Your task to perform on an android device: Find coffee shops on Maps Image 0: 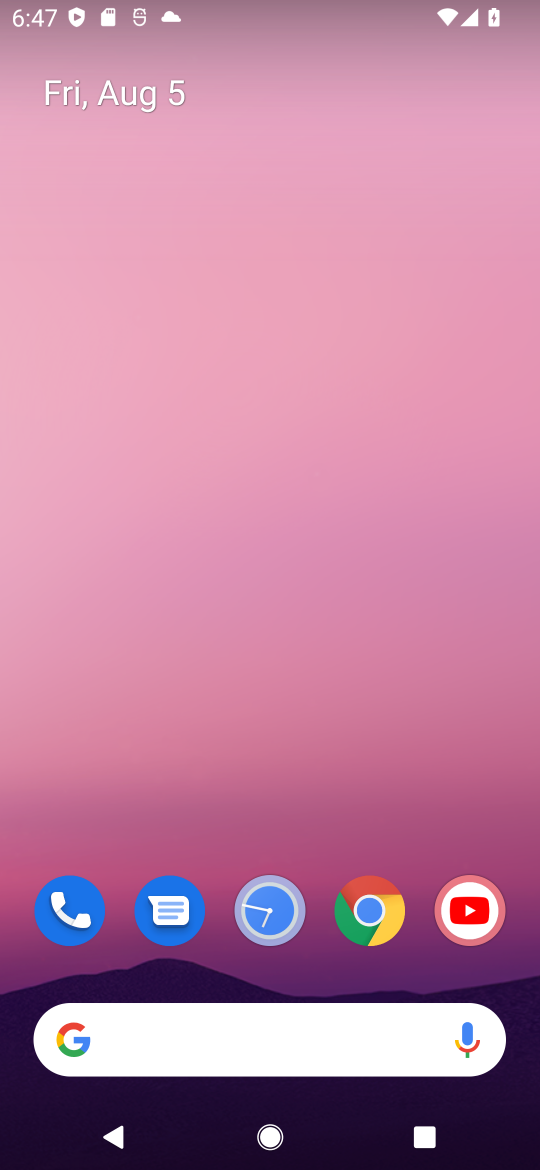
Step 0: drag from (318, 1036) to (295, 136)
Your task to perform on an android device: Find coffee shops on Maps Image 1: 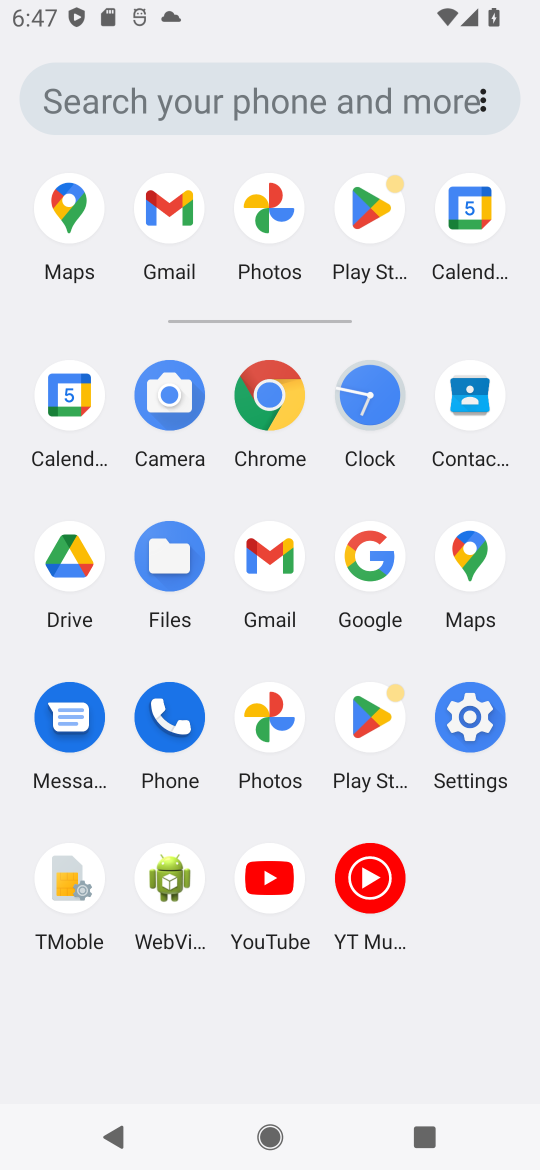
Step 1: click (478, 560)
Your task to perform on an android device: Find coffee shops on Maps Image 2: 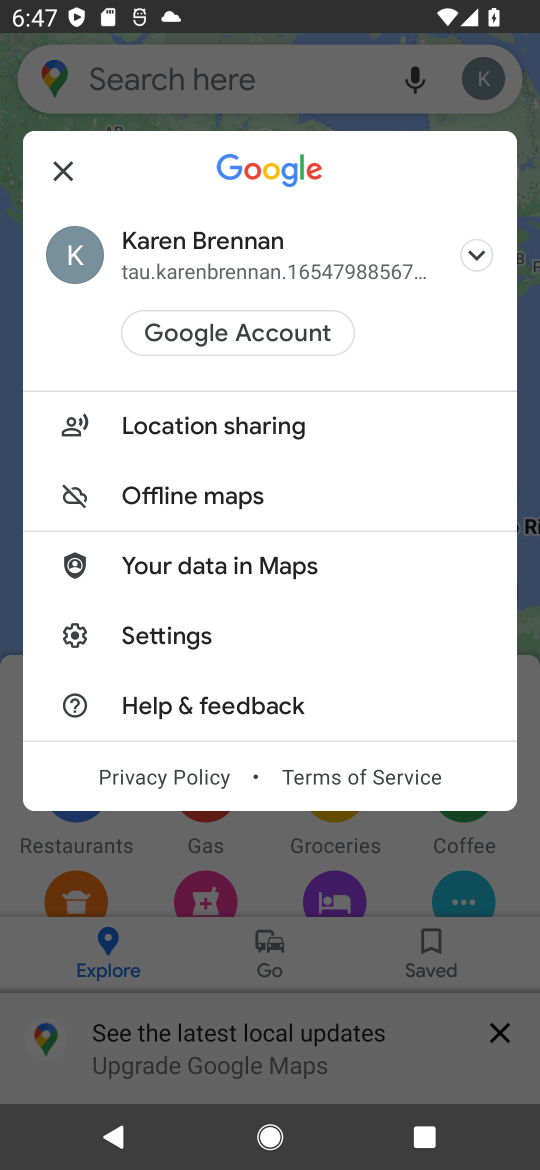
Step 2: click (45, 160)
Your task to perform on an android device: Find coffee shops on Maps Image 3: 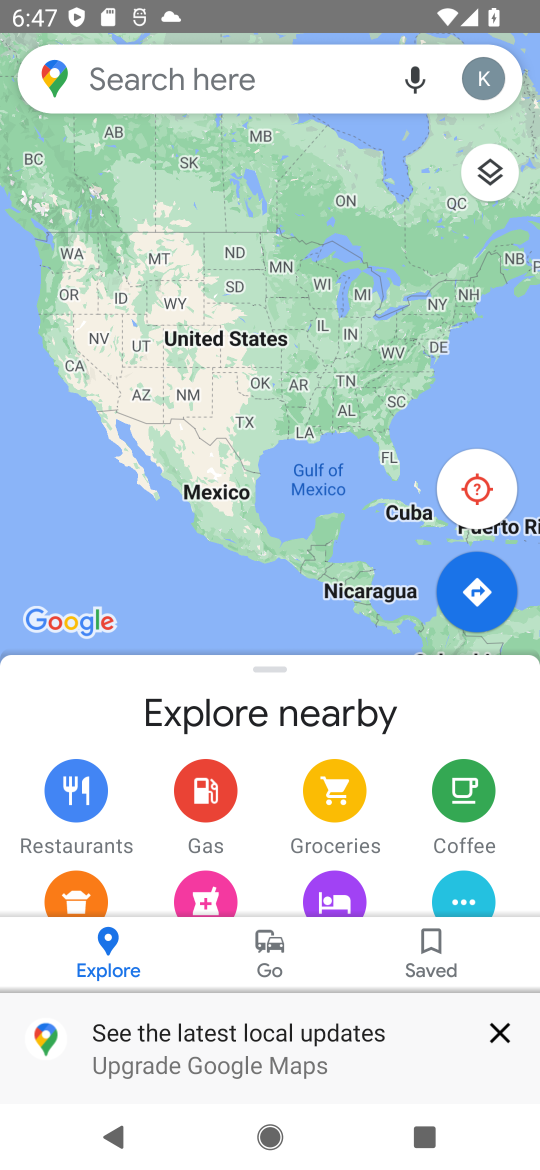
Step 3: click (193, 91)
Your task to perform on an android device: Find coffee shops on Maps Image 4: 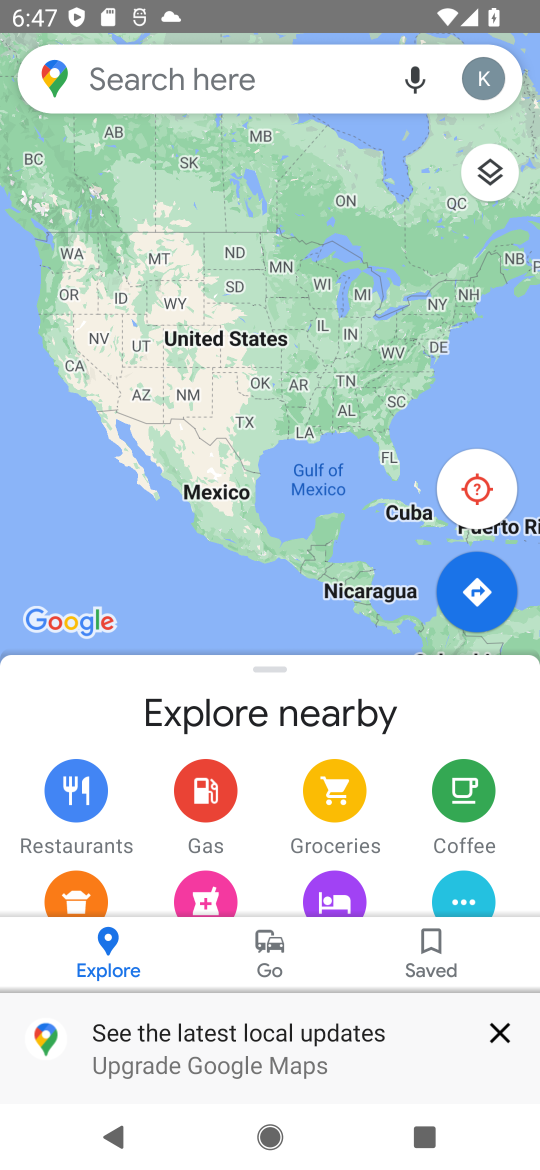
Step 4: click (193, 91)
Your task to perform on an android device: Find coffee shops on Maps Image 5: 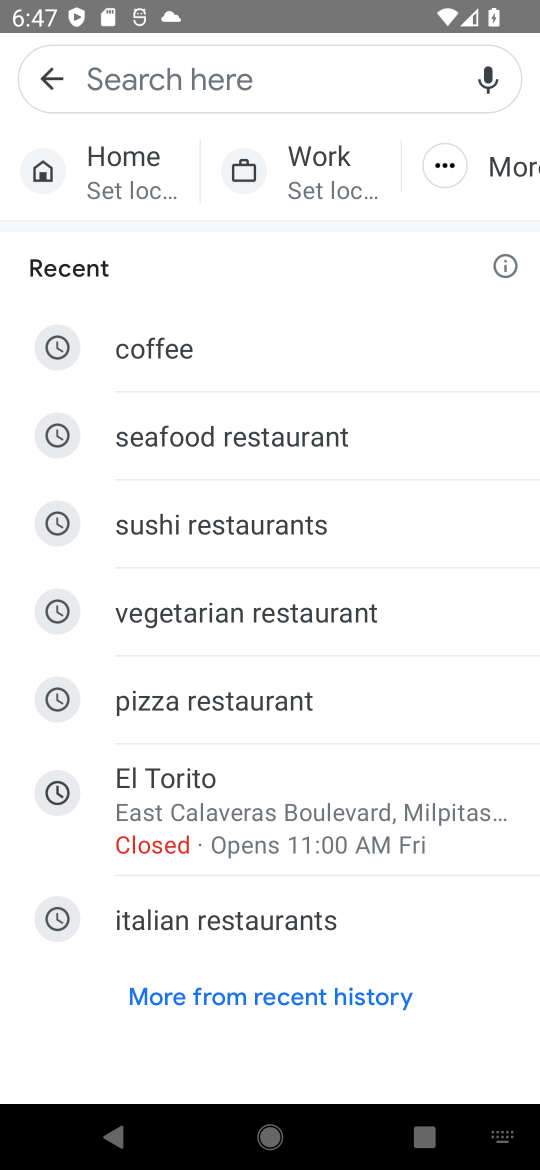
Step 5: type "coffee shops"
Your task to perform on an android device: Find coffee shops on Maps Image 6: 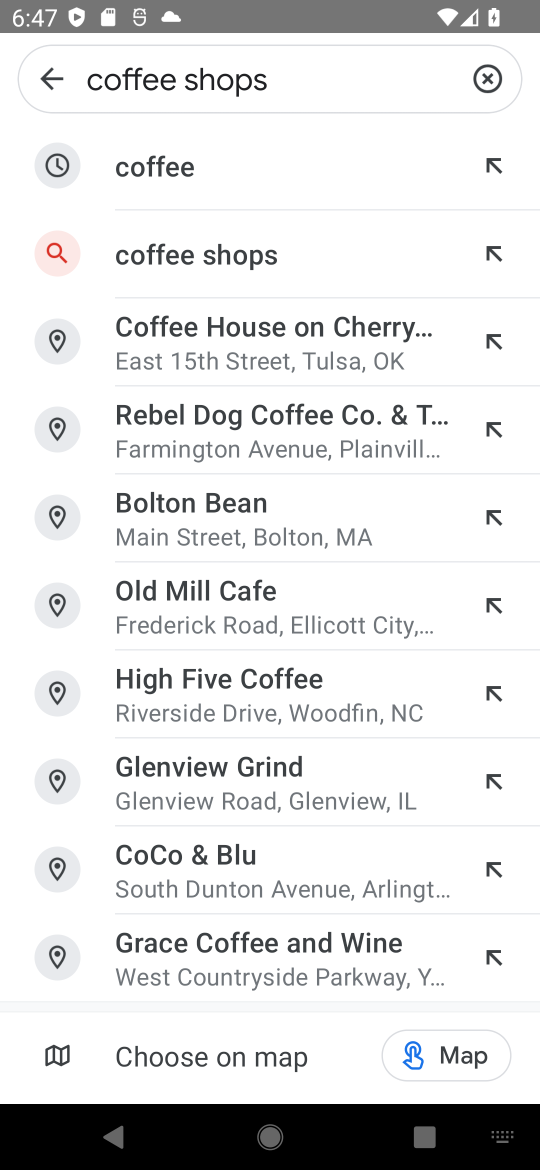
Step 6: click (191, 271)
Your task to perform on an android device: Find coffee shops on Maps Image 7: 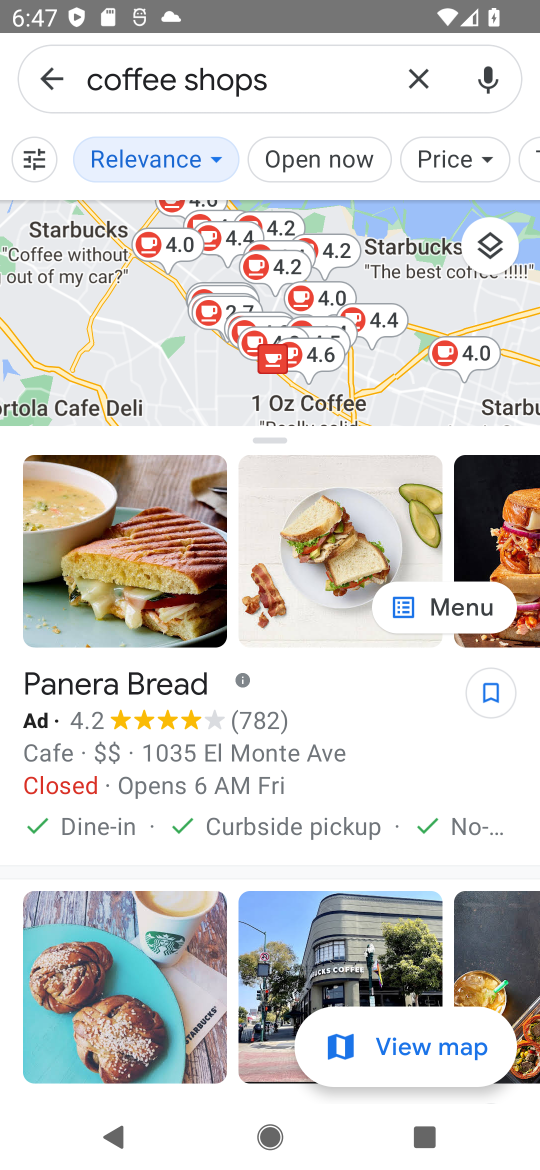
Step 7: task complete